Your task to perform on an android device: allow notifications from all sites in the chrome app Image 0: 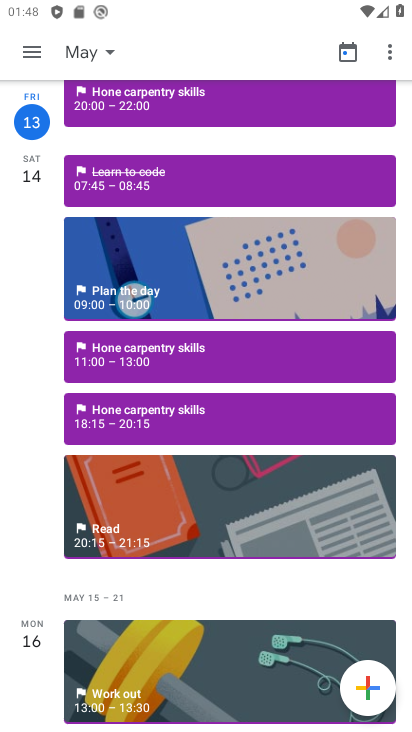
Step 0: press home button
Your task to perform on an android device: allow notifications from all sites in the chrome app Image 1: 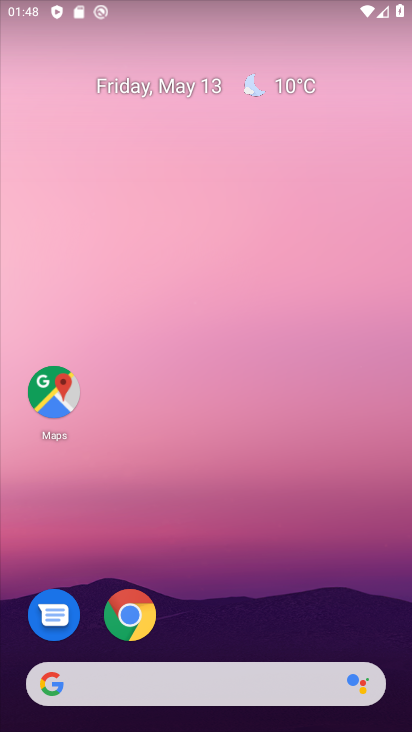
Step 1: drag from (184, 512) to (99, 171)
Your task to perform on an android device: allow notifications from all sites in the chrome app Image 2: 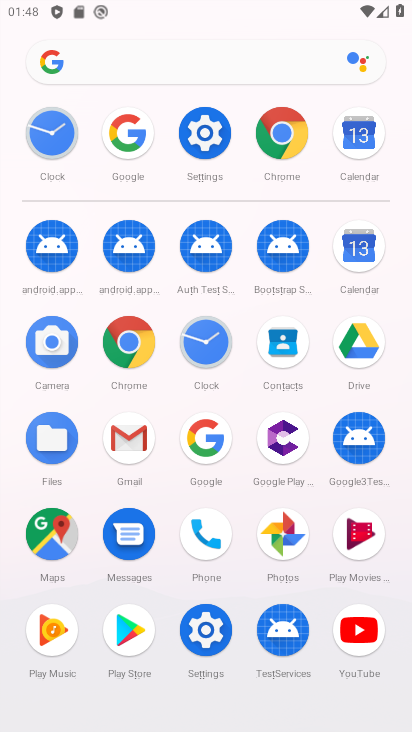
Step 2: click (129, 355)
Your task to perform on an android device: allow notifications from all sites in the chrome app Image 3: 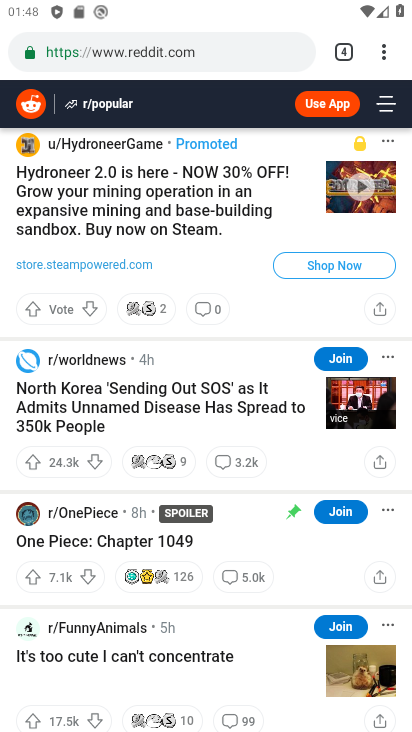
Step 3: click (383, 50)
Your task to perform on an android device: allow notifications from all sites in the chrome app Image 4: 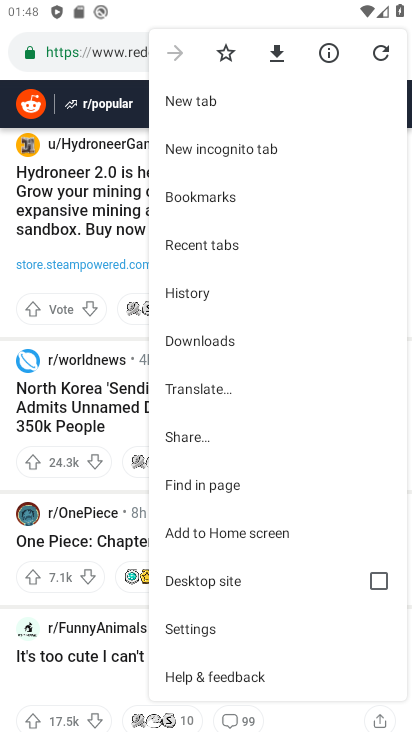
Step 4: click (193, 631)
Your task to perform on an android device: allow notifications from all sites in the chrome app Image 5: 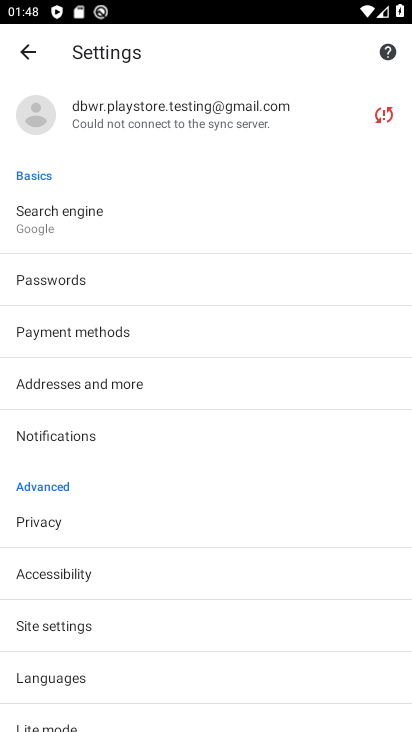
Step 5: click (48, 435)
Your task to perform on an android device: allow notifications from all sites in the chrome app Image 6: 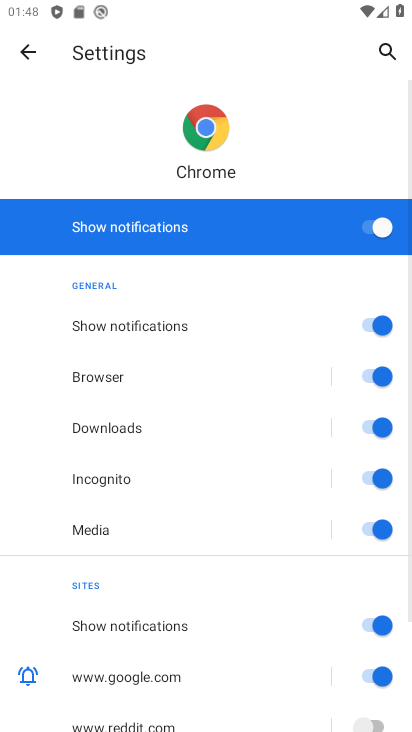
Step 6: drag from (186, 647) to (210, 491)
Your task to perform on an android device: allow notifications from all sites in the chrome app Image 7: 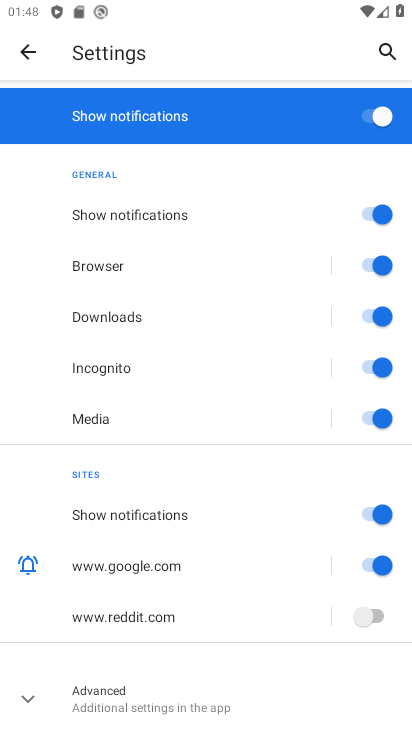
Step 7: click (369, 612)
Your task to perform on an android device: allow notifications from all sites in the chrome app Image 8: 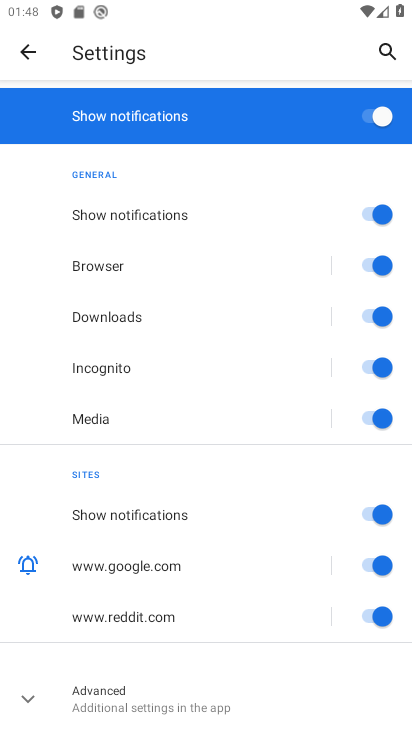
Step 8: task complete